Your task to perform on an android device: open app "Grab" Image 0: 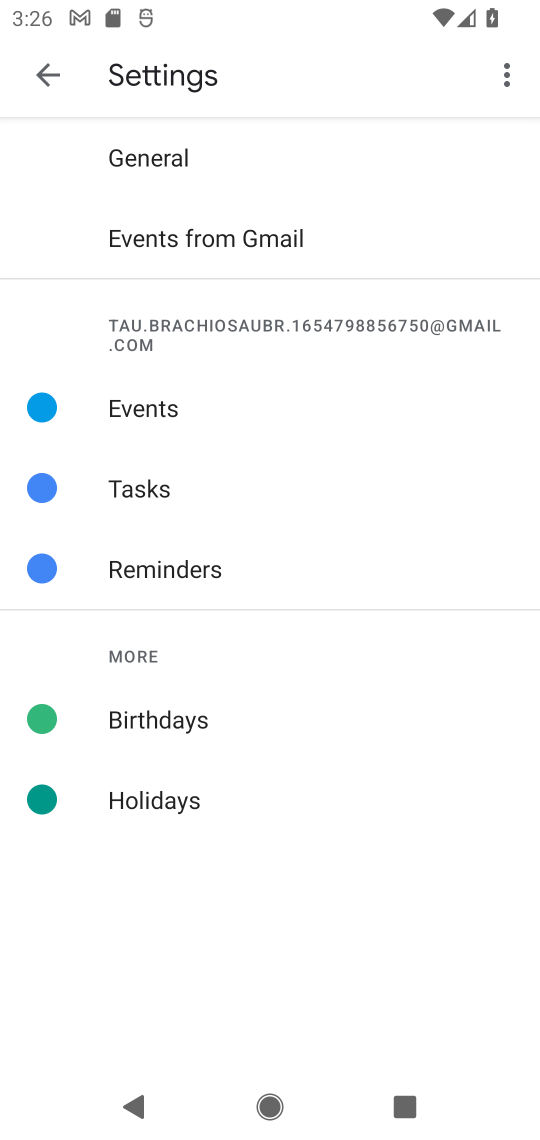
Step 0: press home button
Your task to perform on an android device: open app "Grab" Image 1: 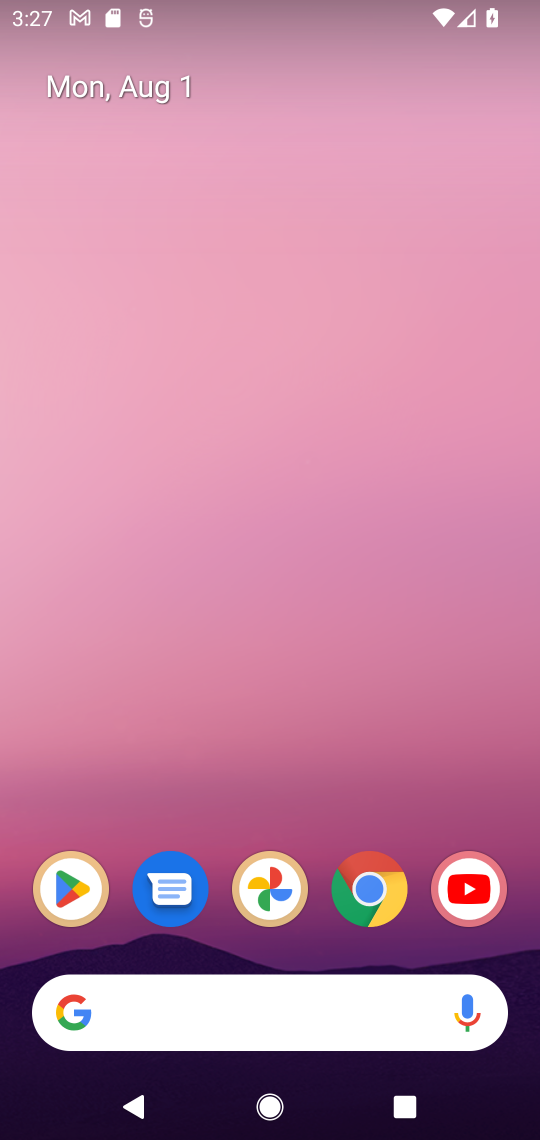
Step 1: click (84, 895)
Your task to perform on an android device: open app "Grab" Image 2: 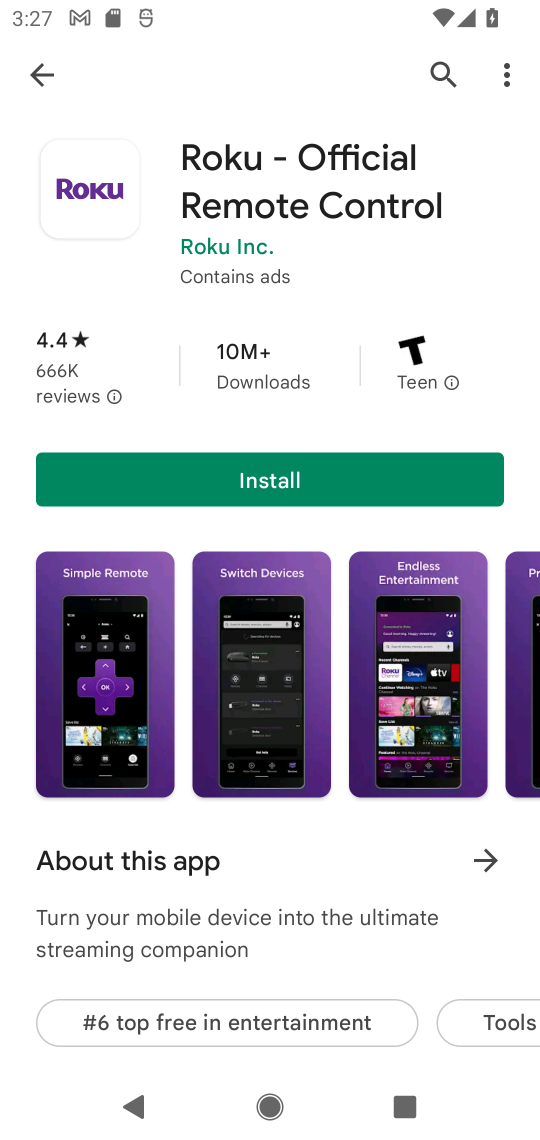
Step 2: task complete